Your task to perform on an android device: See recent photos Image 0: 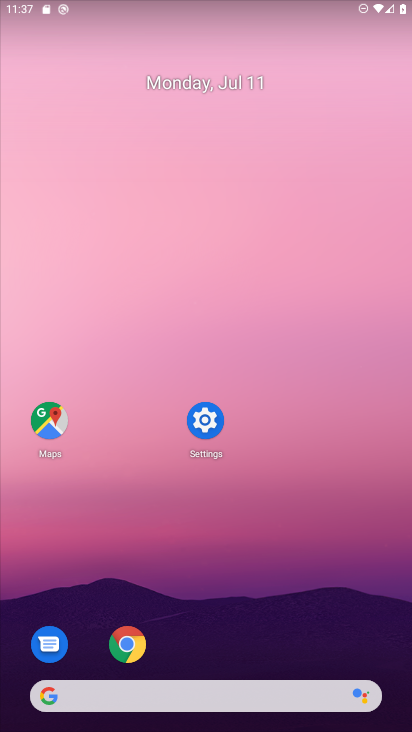
Step 0: drag from (375, 605) to (275, 80)
Your task to perform on an android device: See recent photos Image 1: 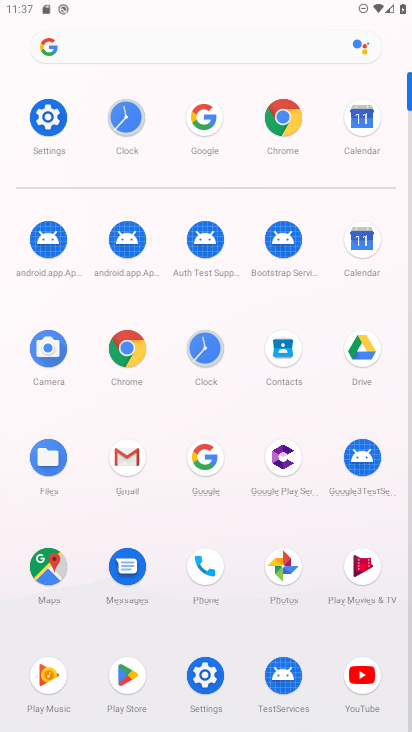
Step 1: click (293, 546)
Your task to perform on an android device: See recent photos Image 2: 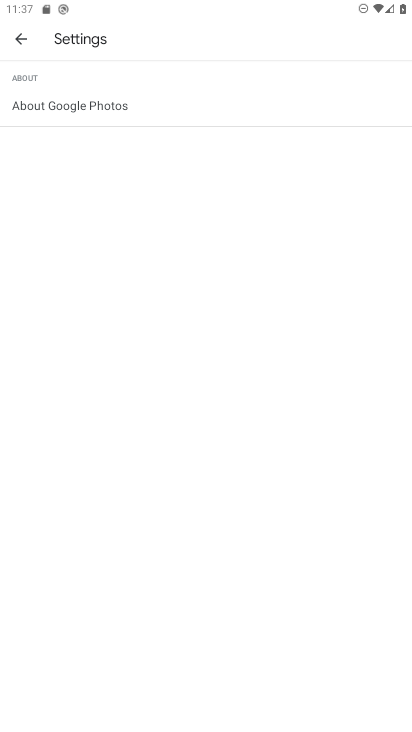
Step 2: click (10, 35)
Your task to perform on an android device: See recent photos Image 3: 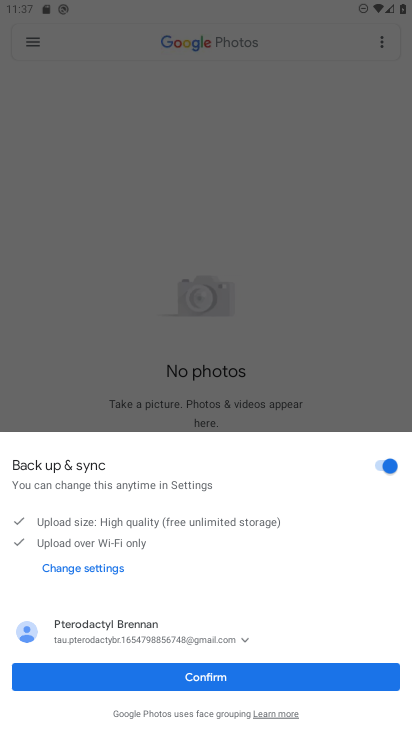
Step 3: click (279, 667)
Your task to perform on an android device: See recent photos Image 4: 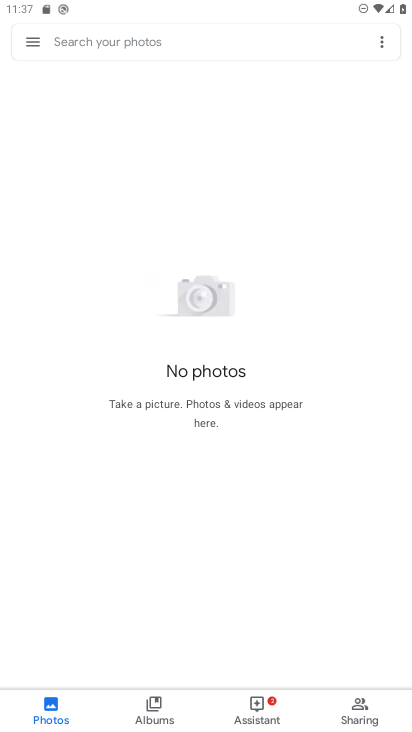
Step 4: click (60, 703)
Your task to perform on an android device: See recent photos Image 5: 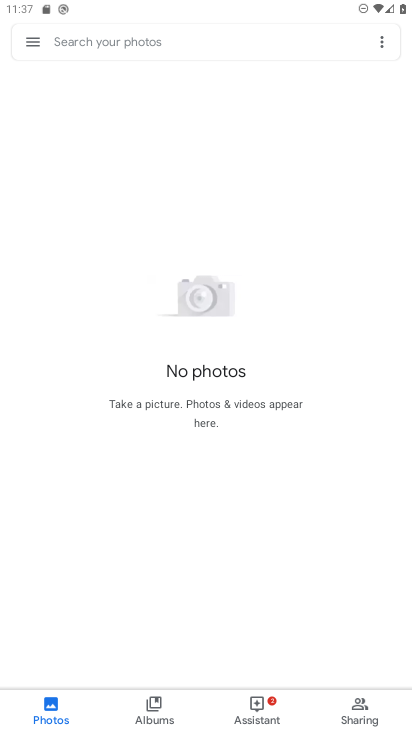
Step 5: task complete